Your task to perform on an android device: turn off notifications in google photos Image 0: 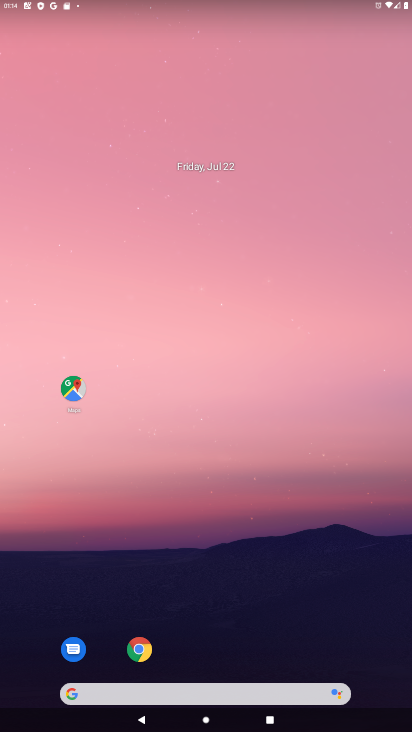
Step 0: drag from (221, 612) to (243, 47)
Your task to perform on an android device: turn off notifications in google photos Image 1: 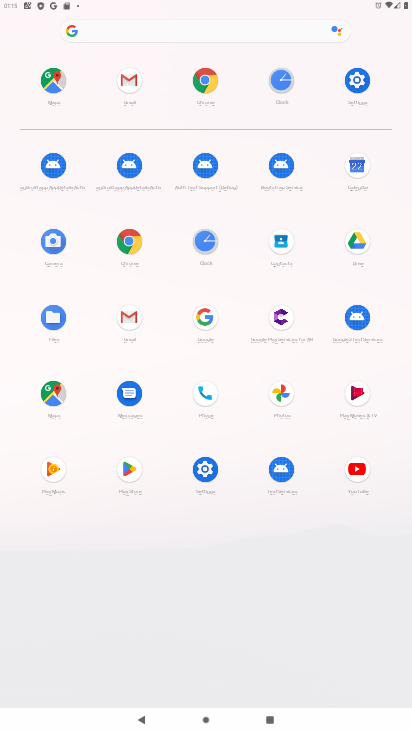
Step 1: click (281, 383)
Your task to perform on an android device: turn off notifications in google photos Image 2: 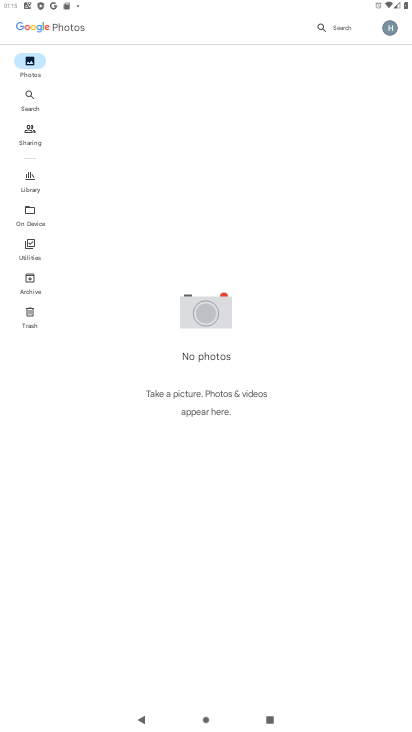
Step 2: click (393, 28)
Your task to perform on an android device: turn off notifications in google photos Image 3: 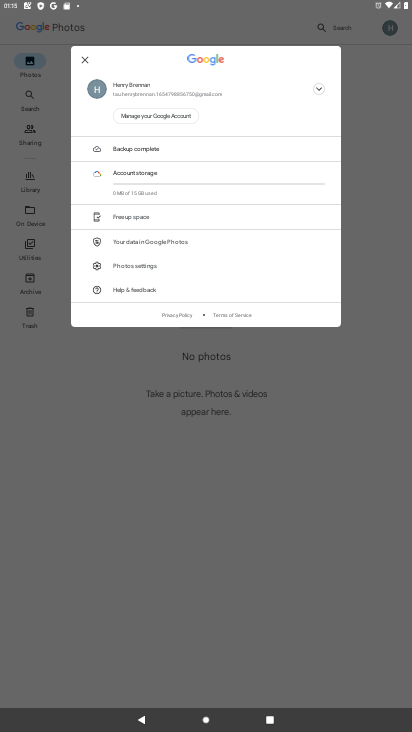
Step 3: click (134, 270)
Your task to perform on an android device: turn off notifications in google photos Image 4: 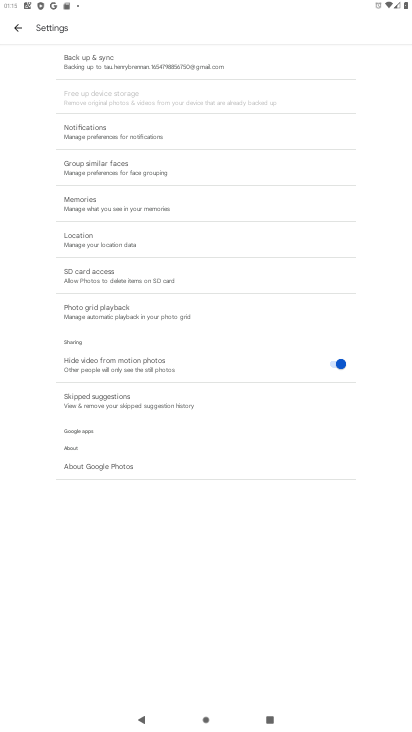
Step 4: click (122, 141)
Your task to perform on an android device: turn off notifications in google photos Image 5: 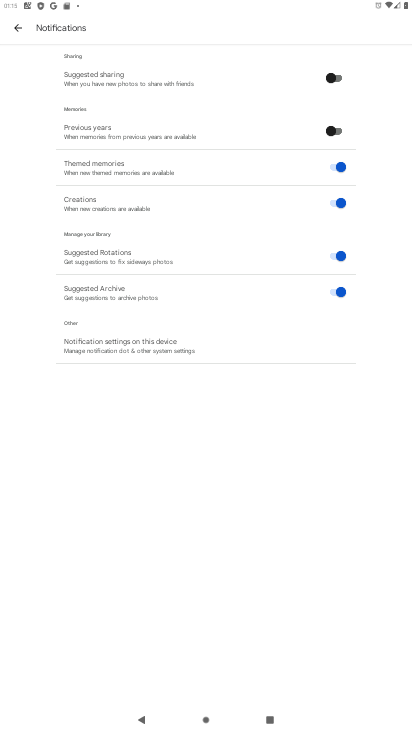
Step 5: click (110, 342)
Your task to perform on an android device: turn off notifications in google photos Image 6: 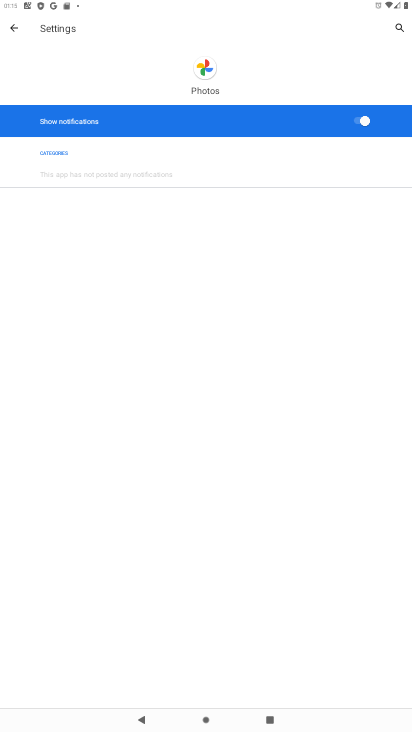
Step 6: click (354, 123)
Your task to perform on an android device: turn off notifications in google photos Image 7: 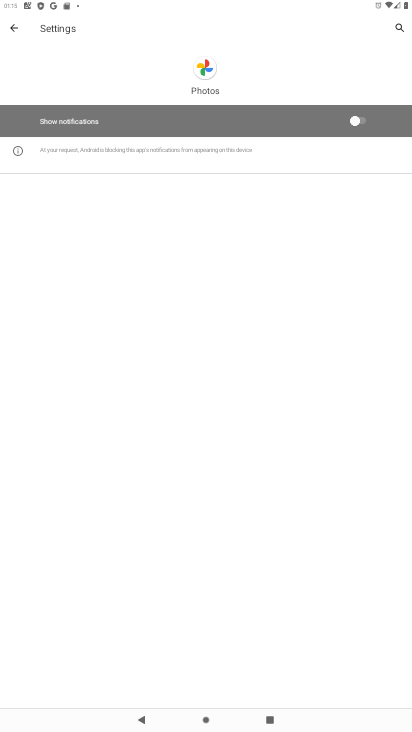
Step 7: task complete